Your task to perform on an android device: toggle translation in the chrome app Image 0: 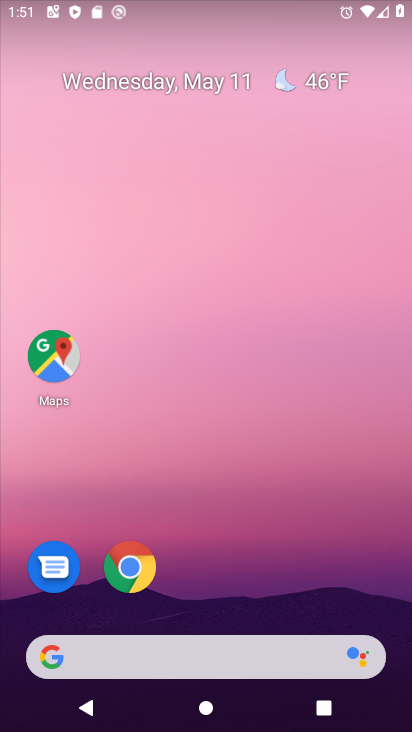
Step 0: click (140, 578)
Your task to perform on an android device: toggle translation in the chrome app Image 1: 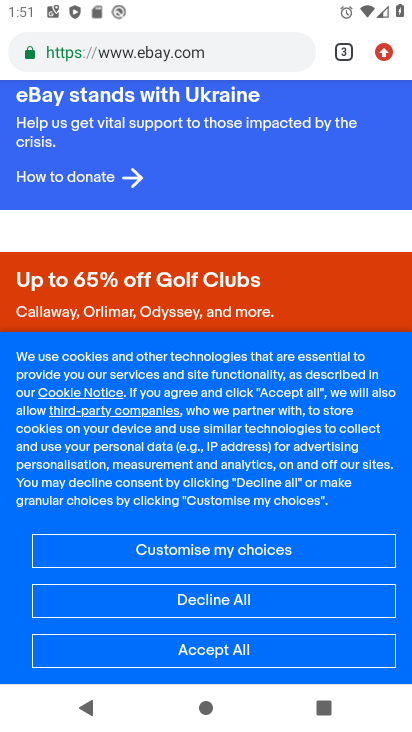
Step 1: click (383, 56)
Your task to perform on an android device: toggle translation in the chrome app Image 2: 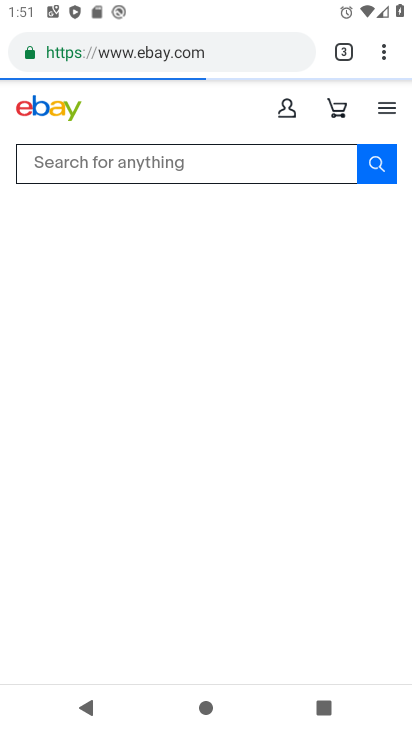
Step 2: click (383, 56)
Your task to perform on an android device: toggle translation in the chrome app Image 3: 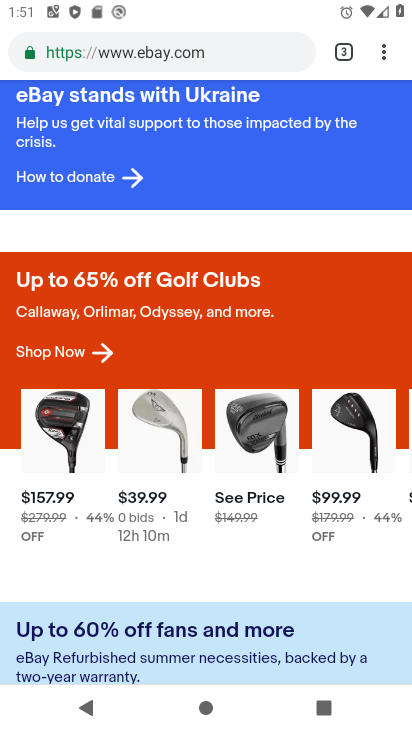
Step 3: click (385, 51)
Your task to perform on an android device: toggle translation in the chrome app Image 4: 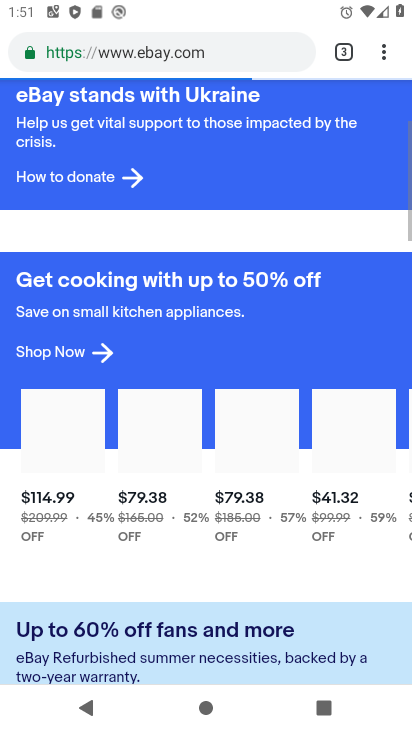
Step 4: click (385, 51)
Your task to perform on an android device: toggle translation in the chrome app Image 5: 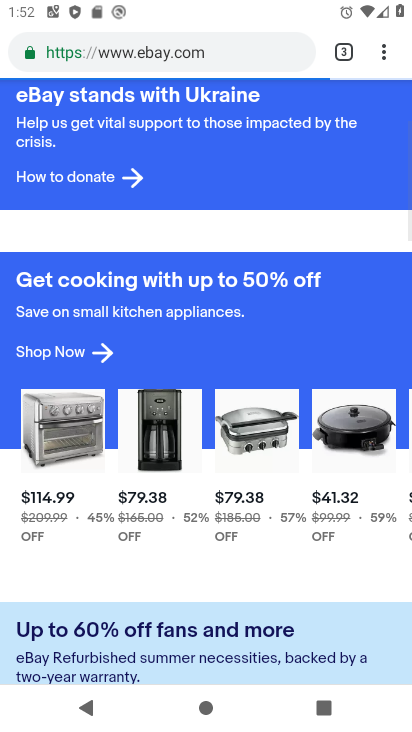
Step 5: click (392, 59)
Your task to perform on an android device: toggle translation in the chrome app Image 6: 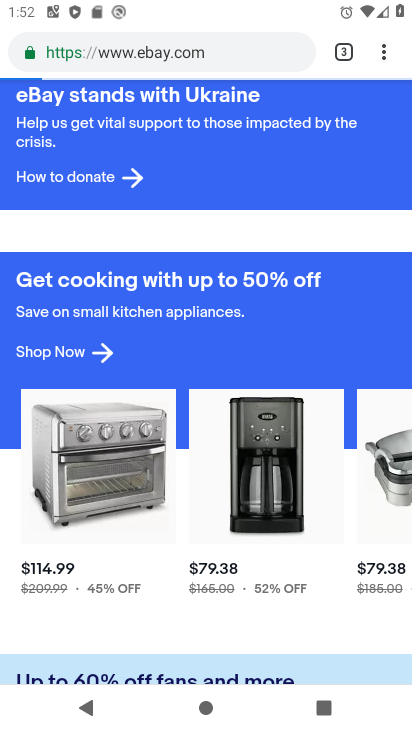
Step 6: drag from (392, 59) to (292, 607)
Your task to perform on an android device: toggle translation in the chrome app Image 7: 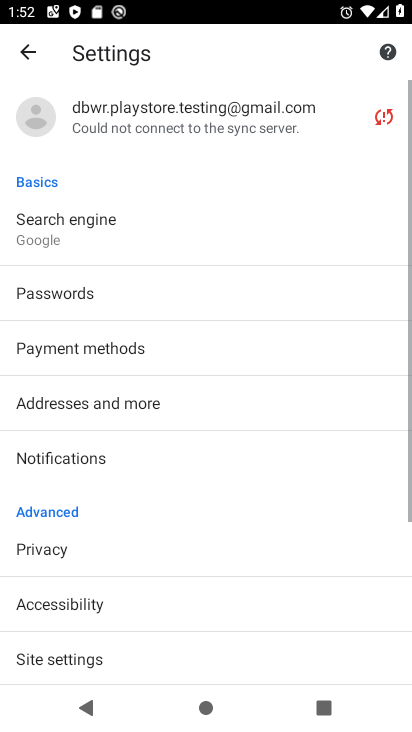
Step 7: drag from (220, 510) to (214, 91)
Your task to perform on an android device: toggle translation in the chrome app Image 8: 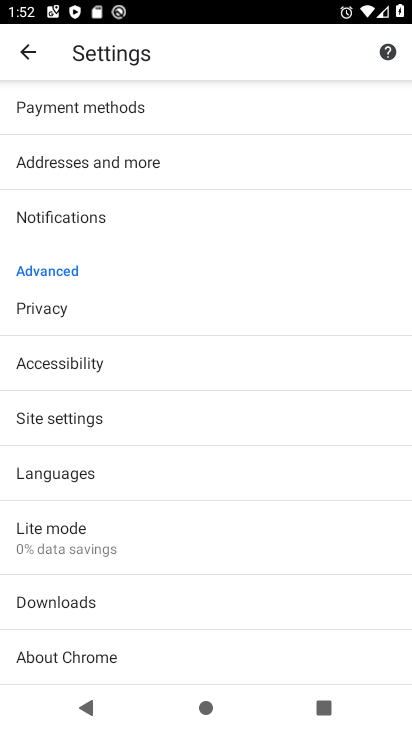
Step 8: click (38, 486)
Your task to perform on an android device: toggle translation in the chrome app Image 9: 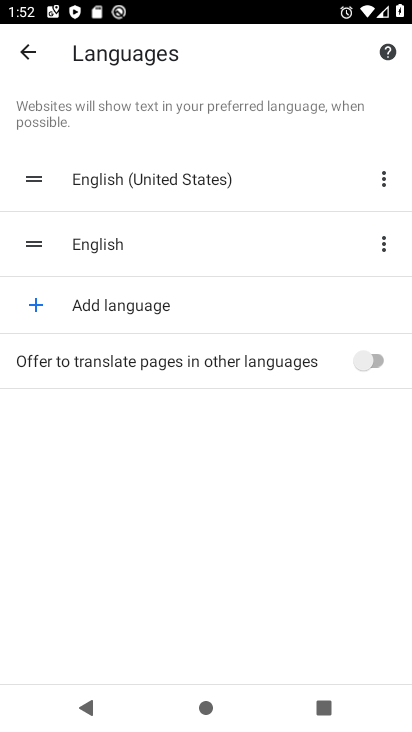
Step 9: click (352, 364)
Your task to perform on an android device: toggle translation in the chrome app Image 10: 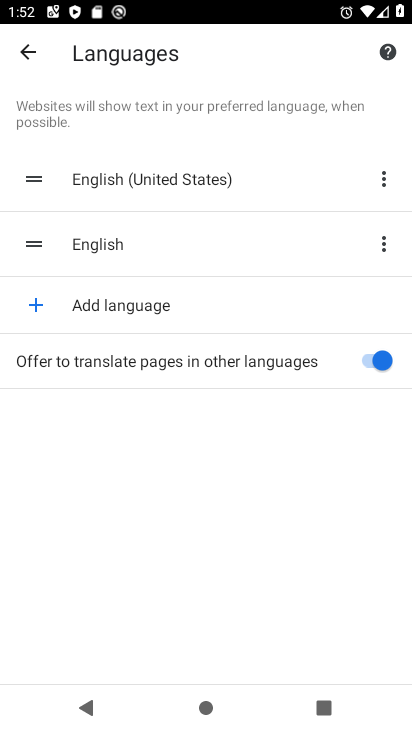
Step 10: task complete